Your task to perform on an android device: check android version Image 0: 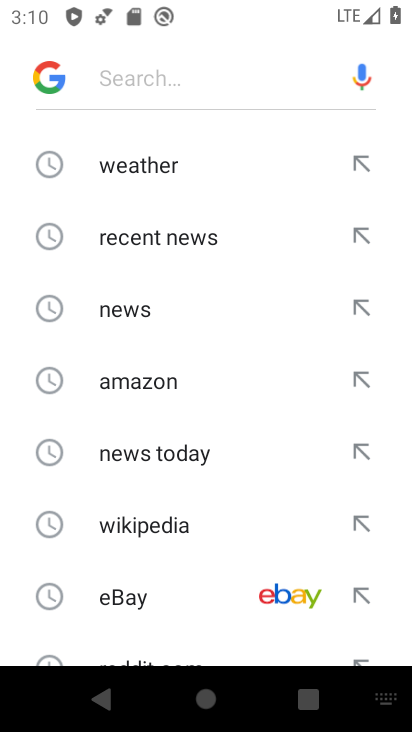
Step 0: press home button
Your task to perform on an android device: check android version Image 1: 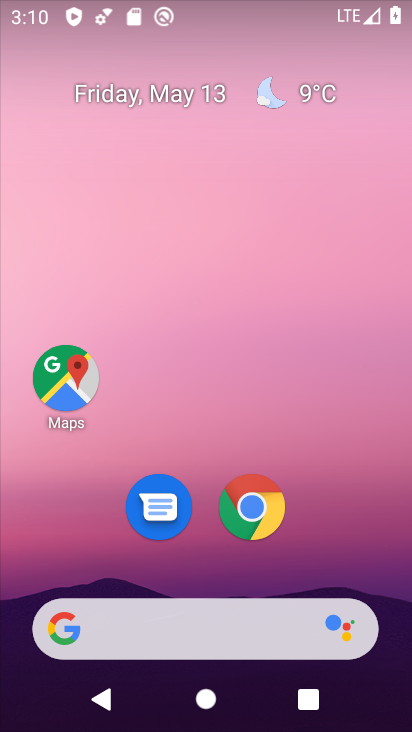
Step 1: drag from (262, 706) to (162, 105)
Your task to perform on an android device: check android version Image 2: 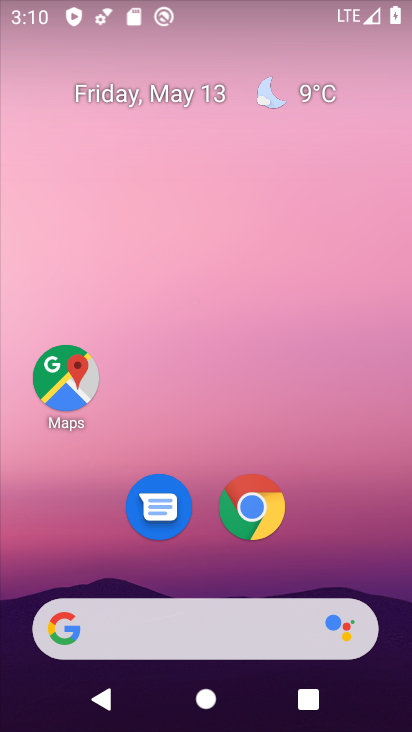
Step 2: drag from (273, 689) to (238, 136)
Your task to perform on an android device: check android version Image 3: 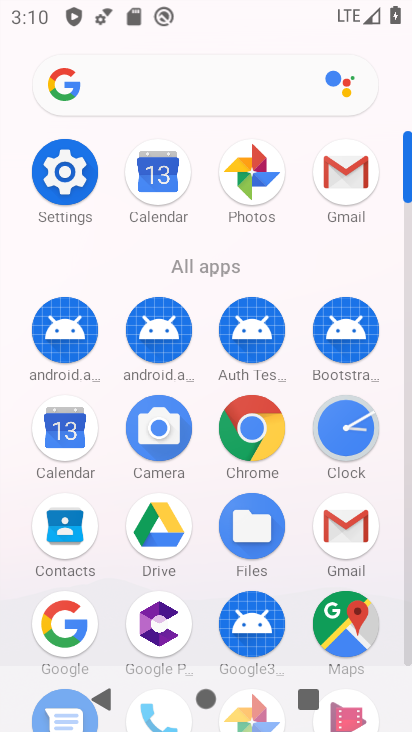
Step 3: click (76, 176)
Your task to perform on an android device: check android version Image 4: 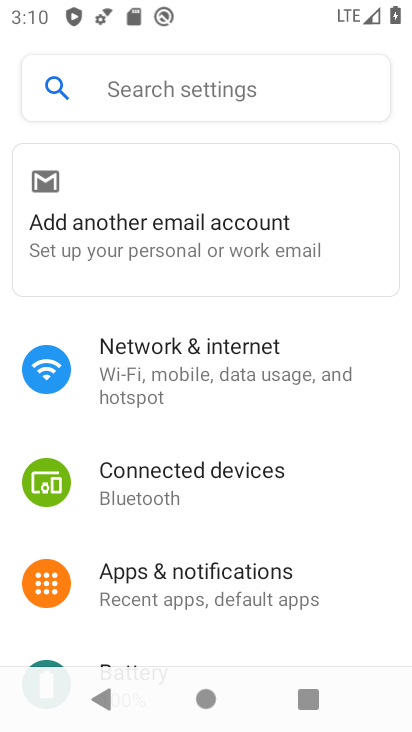
Step 4: drag from (197, 633) to (173, 129)
Your task to perform on an android device: check android version Image 5: 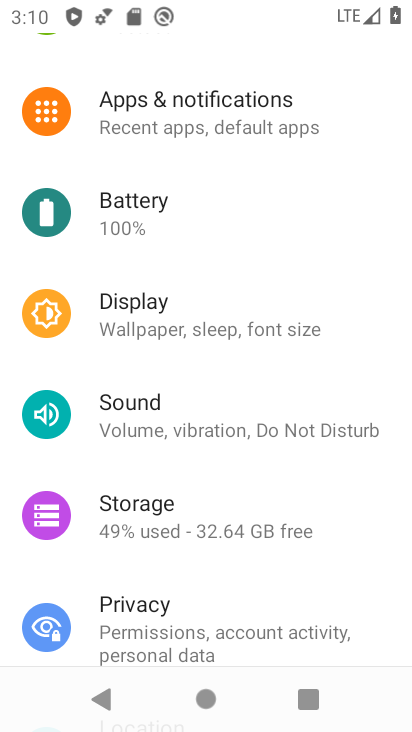
Step 5: drag from (216, 612) to (226, 134)
Your task to perform on an android device: check android version Image 6: 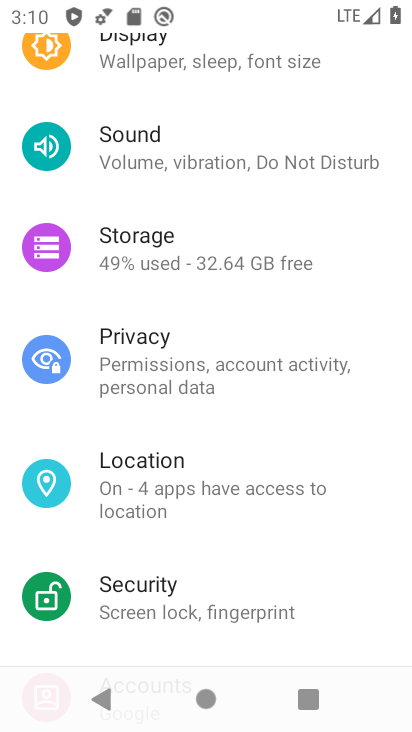
Step 6: drag from (158, 592) to (208, 39)
Your task to perform on an android device: check android version Image 7: 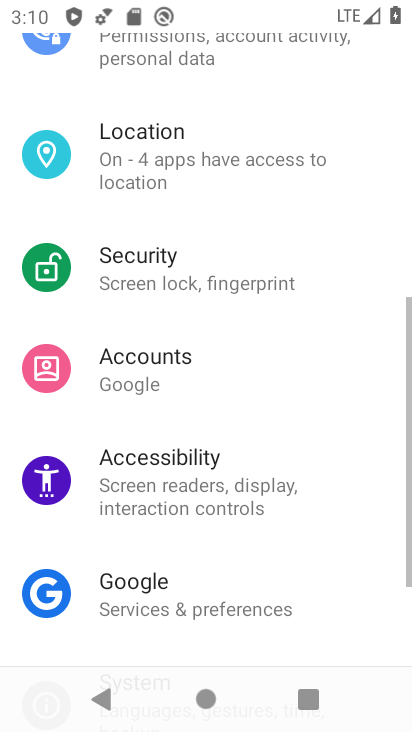
Step 7: drag from (256, 540) to (256, 71)
Your task to perform on an android device: check android version Image 8: 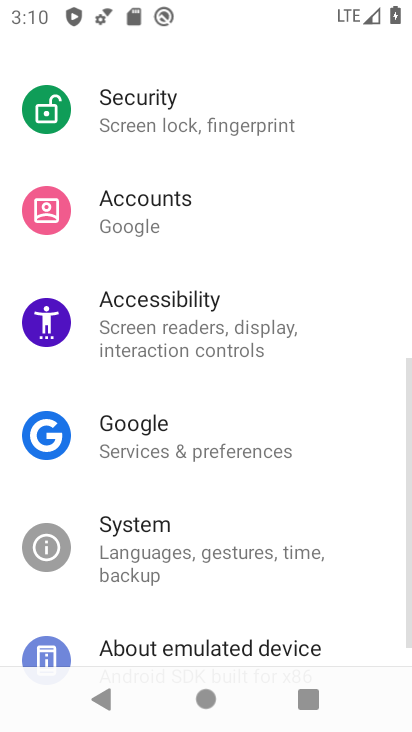
Step 8: drag from (150, 569) to (111, 93)
Your task to perform on an android device: check android version Image 9: 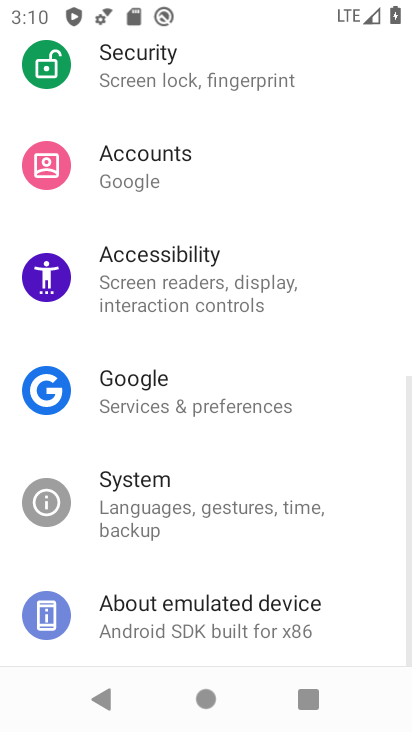
Step 9: click (214, 613)
Your task to perform on an android device: check android version Image 10: 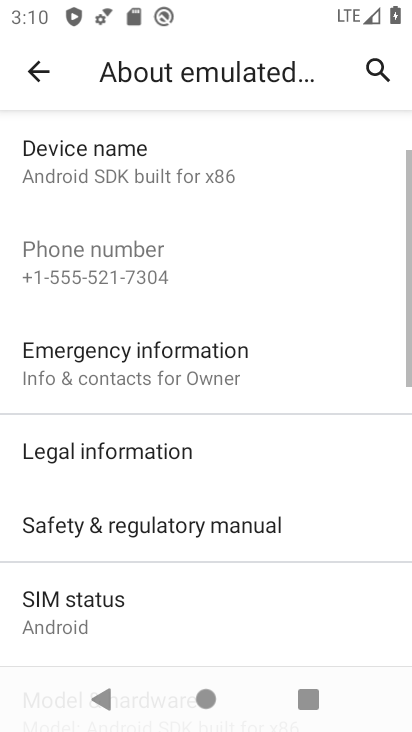
Step 10: task complete